Your task to perform on an android device: Go to ESPN.com Image 0: 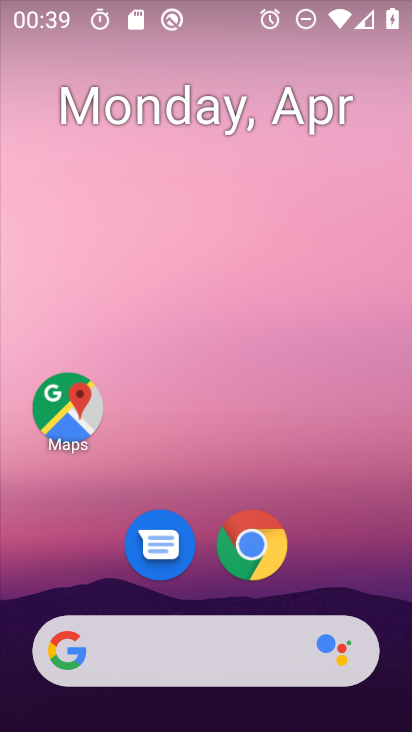
Step 0: click (265, 535)
Your task to perform on an android device: Go to ESPN.com Image 1: 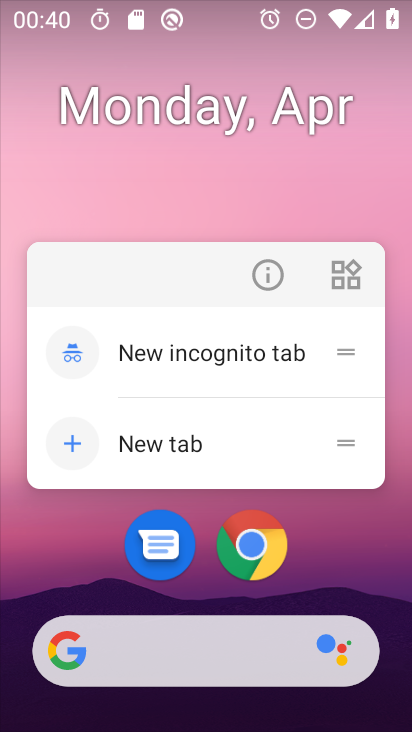
Step 1: click (295, 547)
Your task to perform on an android device: Go to ESPN.com Image 2: 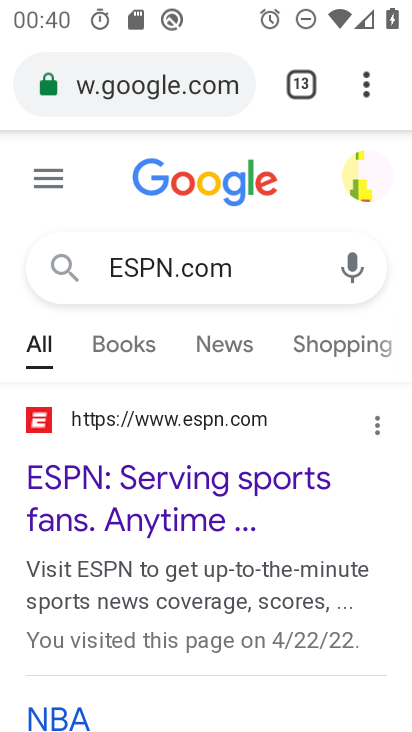
Step 2: task complete